Your task to perform on an android device: open chrome and create a bookmark for the current page Image 0: 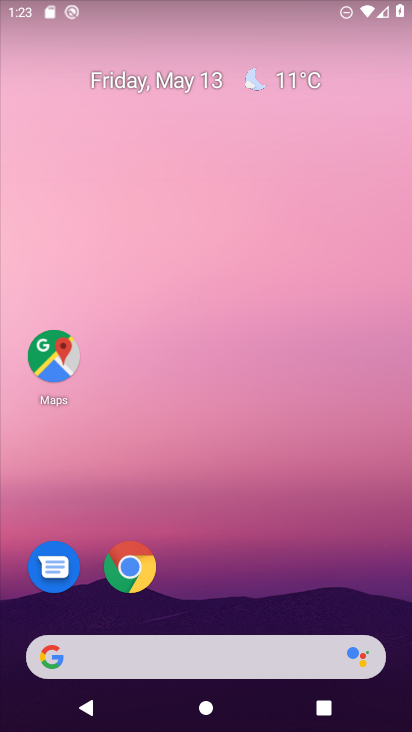
Step 0: drag from (203, 603) to (208, 43)
Your task to perform on an android device: open chrome and create a bookmark for the current page Image 1: 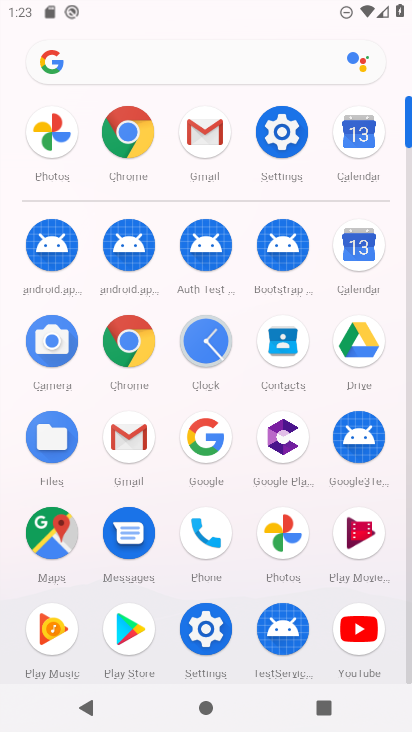
Step 1: click (202, 127)
Your task to perform on an android device: open chrome and create a bookmark for the current page Image 2: 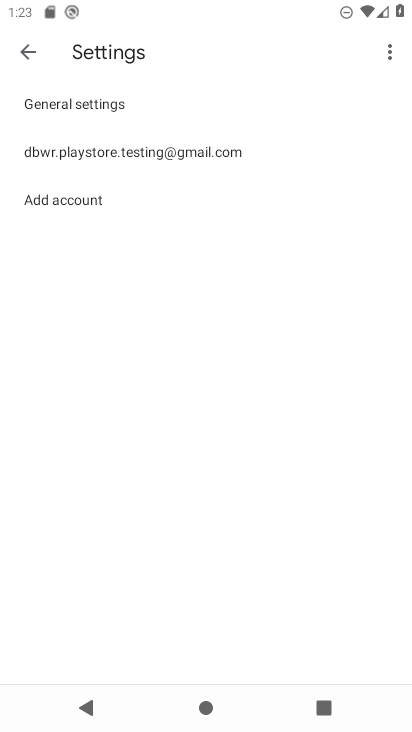
Step 2: press home button
Your task to perform on an android device: open chrome and create a bookmark for the current page Image 3: 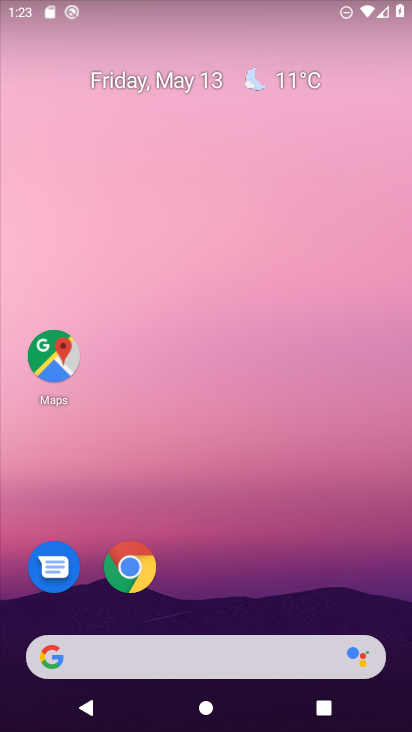
Step 3: click (133, 564)
Your task to perform on an android device: open chrome and create a bookmark for the current page Image 4: 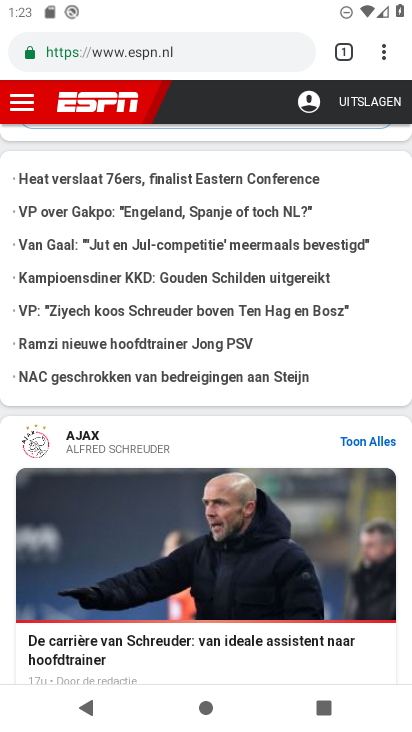
Step 4: click (387, 51)
Your task to perform on an android device: open chrome and create a bookmark for the current page Image 5: 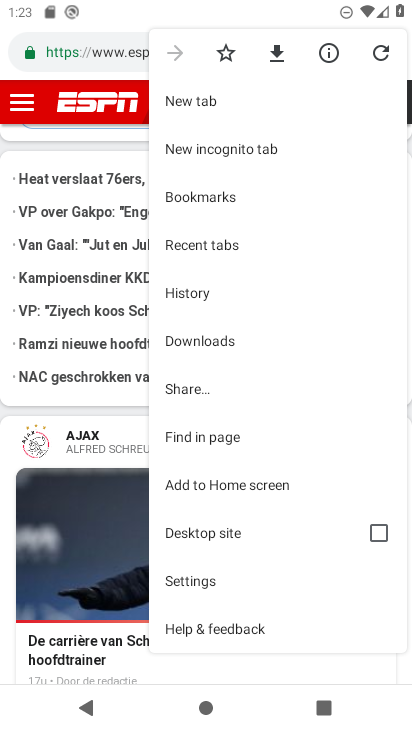
Step 5: click (237, 191)
Your task to perform on an android device: open chrome and create a bookmark for the current page Image 6: 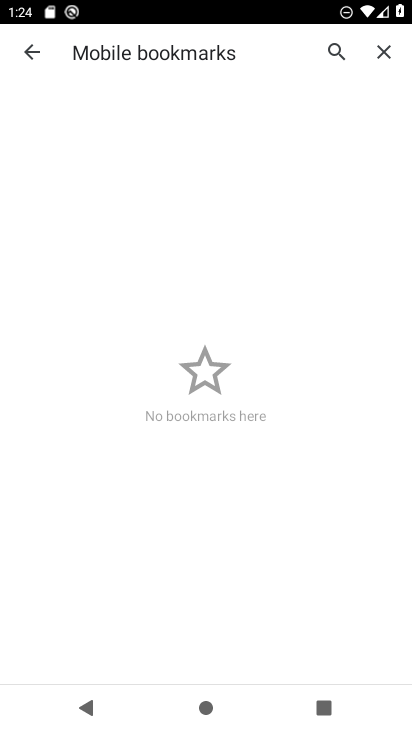
Step 6: click (379, 51)
Your task to perform on an android device: open chrome and create a bookmark for the current page Image 7: 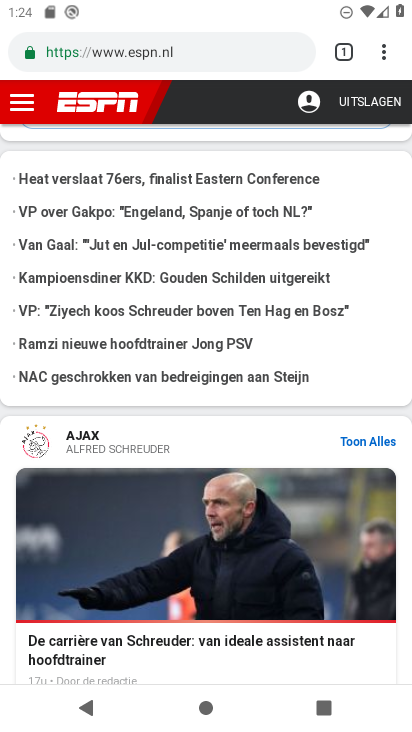
Step 7: click (380, 45)
Your task to perform on an android device: open chrome and create a bookmark for the current page Image 8: 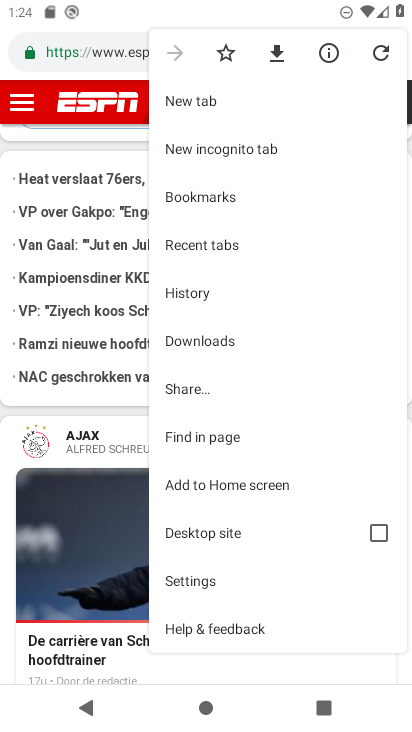
Step 8: click (221, 52)
Your task to perform on an android device: open chrome and create a bookmark for the current page Image 9: 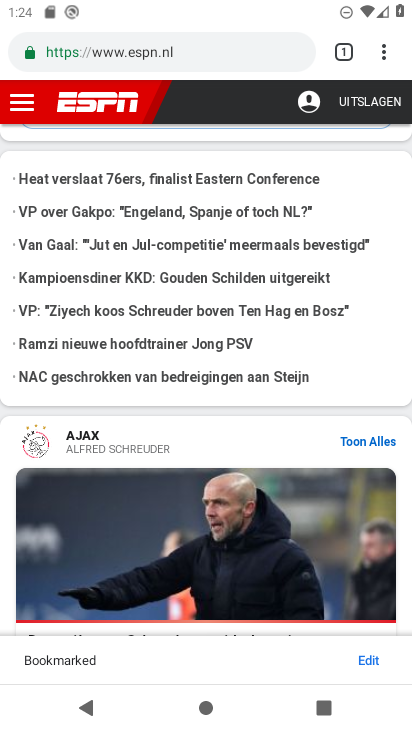
Step 9: task complete